Your task to perform on an android device: turn on the 12-hour format for clock Image 0: 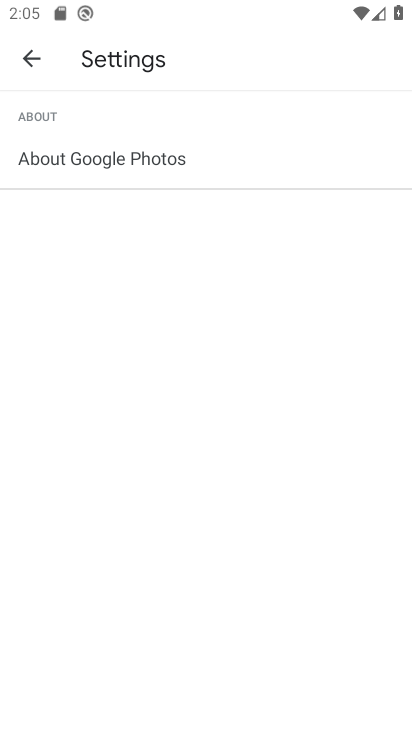
Step 0: press home button
Your task to perform on an android device: turn on the 12-hour format for clock Image 1: 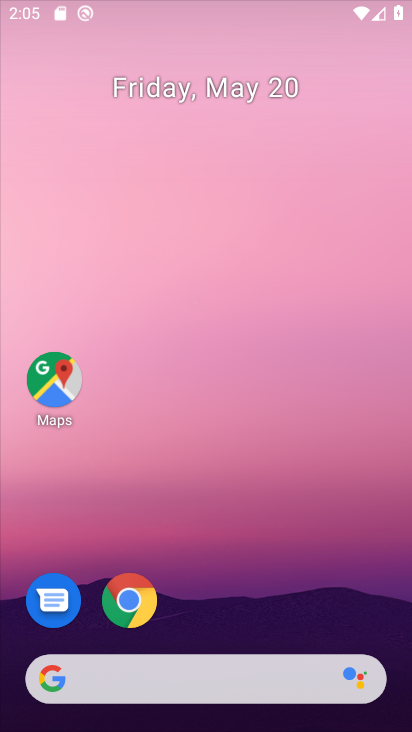
Step 1: drag from (282, 368) to (154, 4)
Your task to perform on an android device: turn on the 12-hour format for clock Image 2: 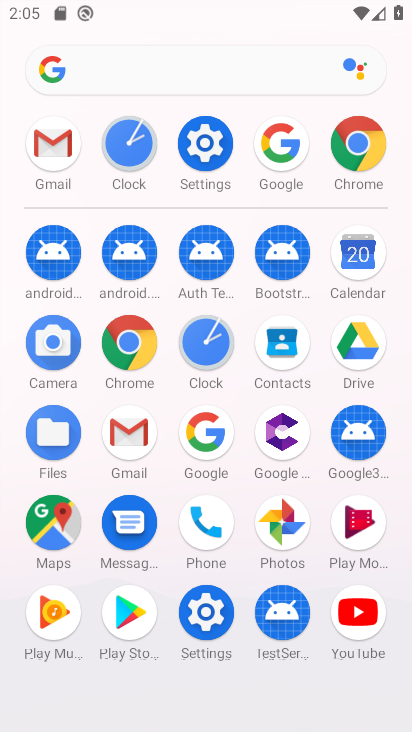
Step 2: click (208, 354)
Your task to perform on an android device: turn on the 12-hour format for clock Image 3: 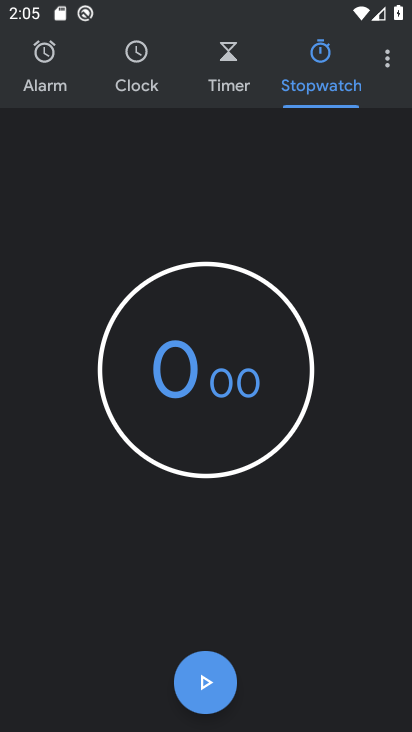
Step 3: click (394, 54)
Your task to perform on an android device: turn on the 12-hour format for clock Image 4: 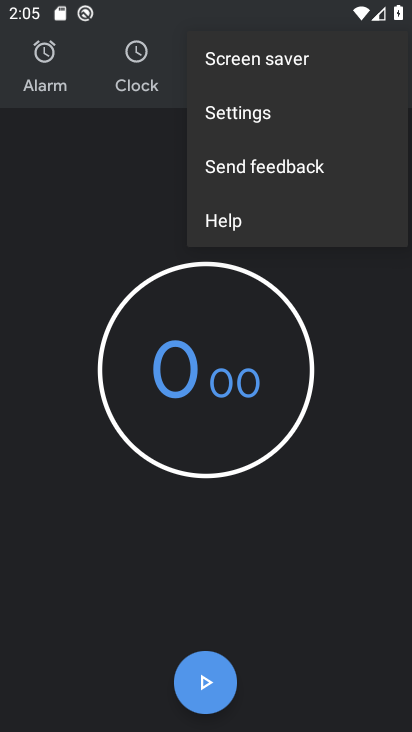
Step 4: click (216, 111)
Your task to perform on an android device: turn on the 12-hour format for clock Image 5: 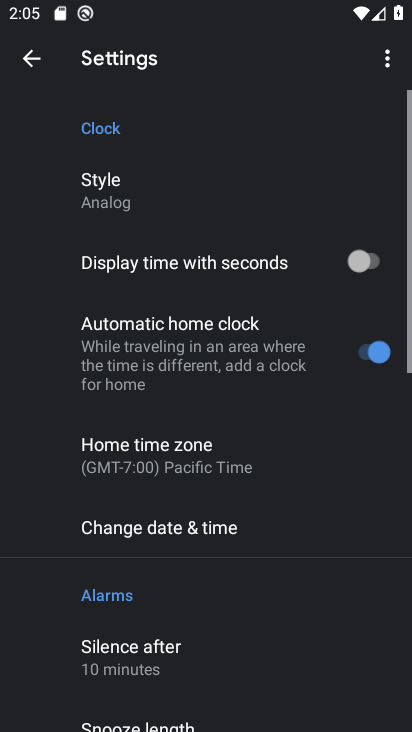
Step 5: click (111, 523)
Your task to perform on an android device: turn on the 12-hour format for clock Image 6: 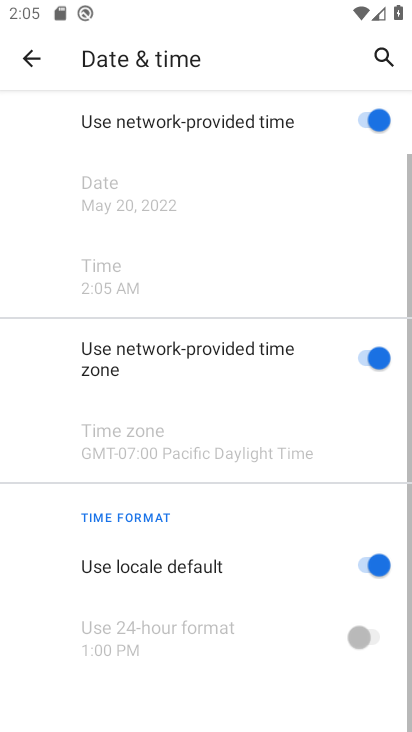
Step 6: task complete